Your task to perform on an android device: open app "DoorDash - Food Delivery" (install if not already installed) Image 0: 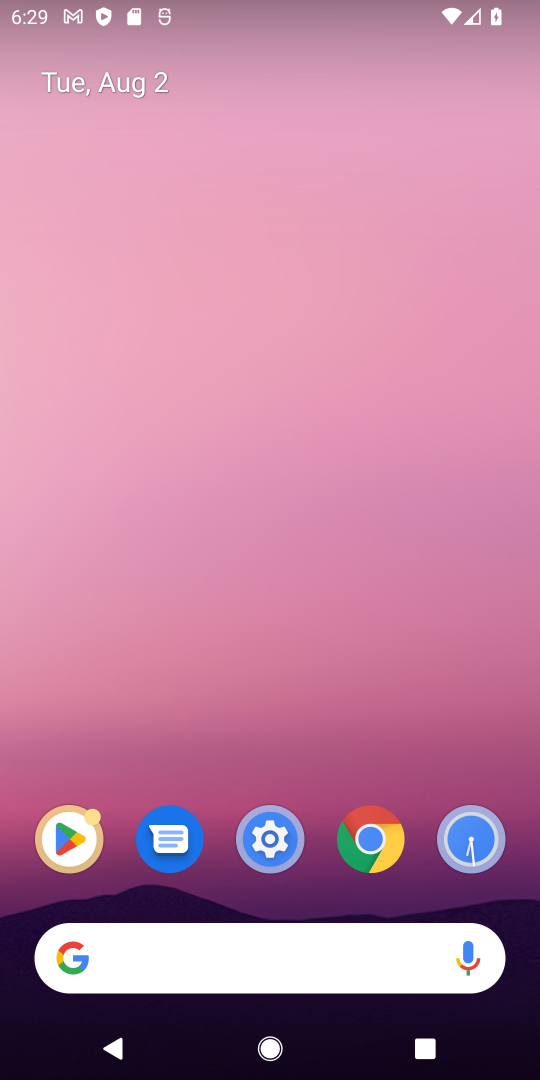
Step 0: click (62, 849)
Your task to perform on an android device: open app "DoorDash - Food Delivery" (install if not already installed) Image 1: 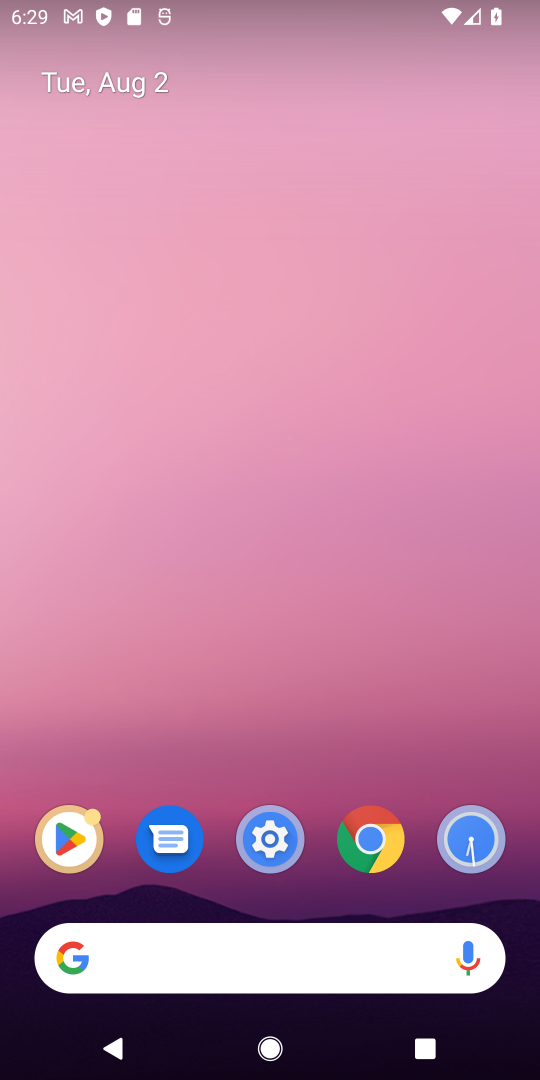
Step 1: click (76, 833)
Your task to perform on an android device: open app "DoorDash - Food Delivery" (install if not already installed) Image 2: 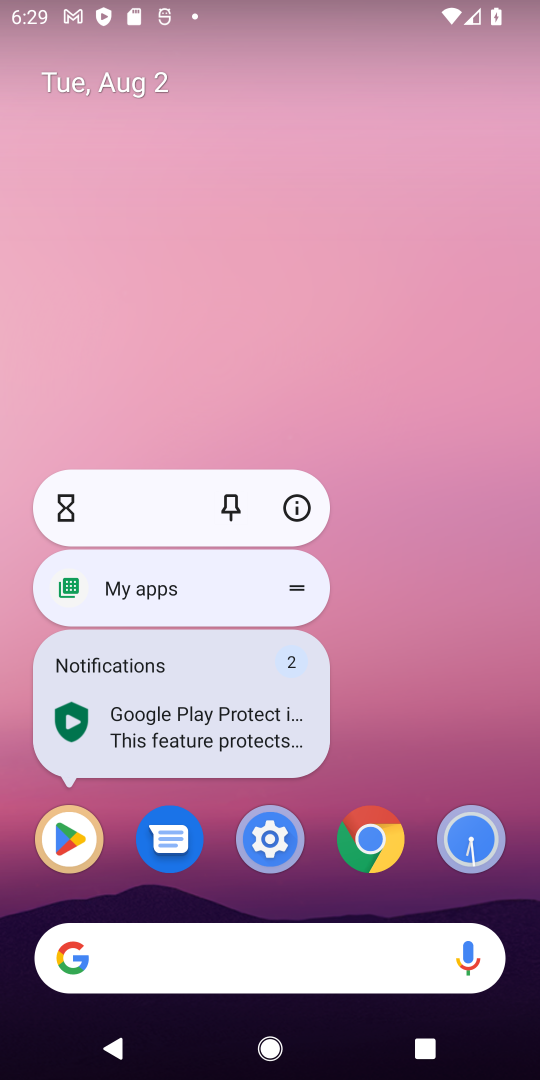
Step 2: click (64, 824)
Your task to perform on an android device: open app "DoorDash - Food Delivery" (install if not already installed) Image 3: 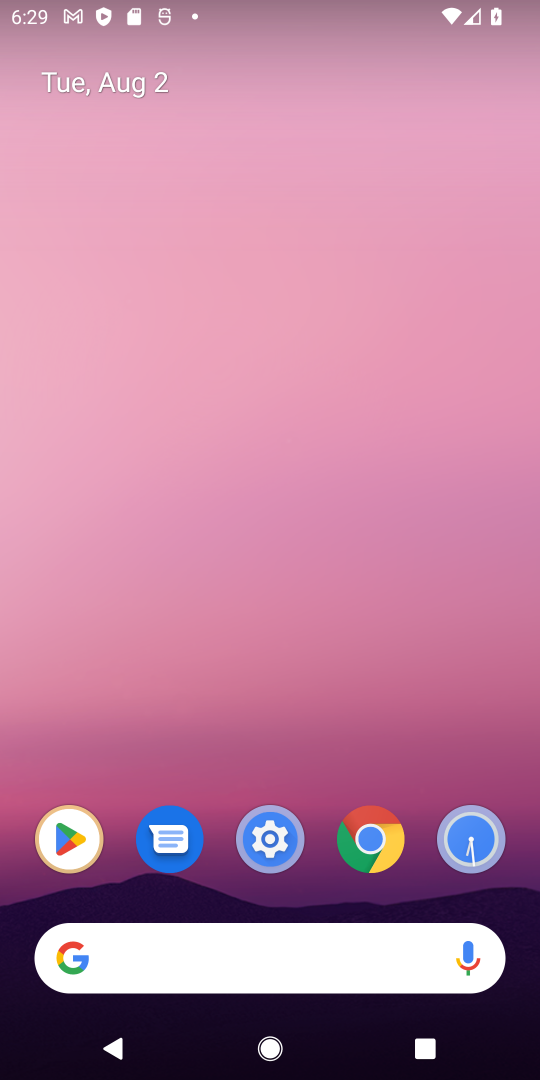
Step 3: click (77, 827)
Your task to perform on an android device: open app "DoorDash - Food Delivery" (install if not already installed) Image 4: 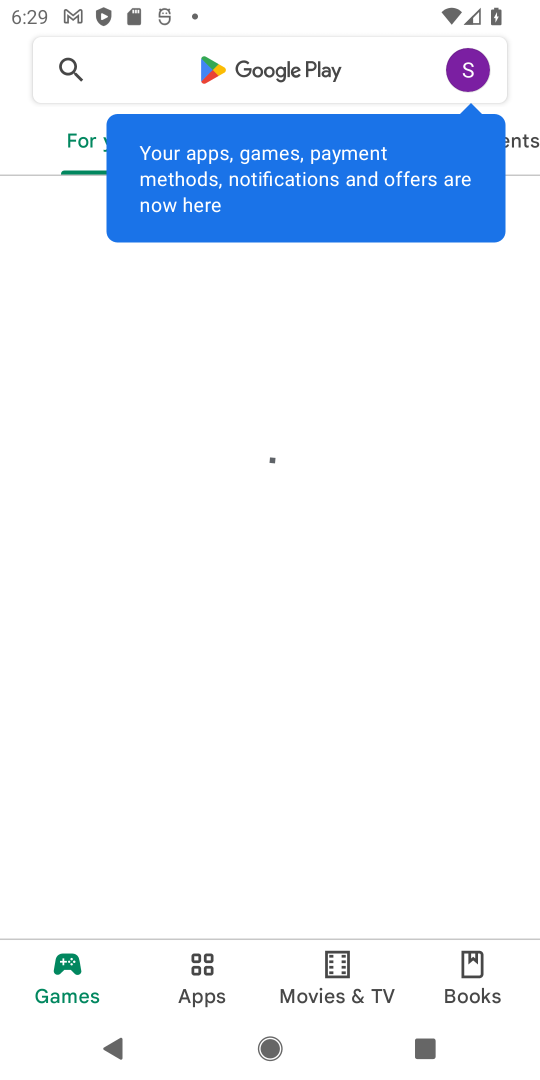
Step 4: click (232, 81)
Your task to perform on an android device: open app "DoorDash - Food Delivery" (install if not already installed) Image 5: 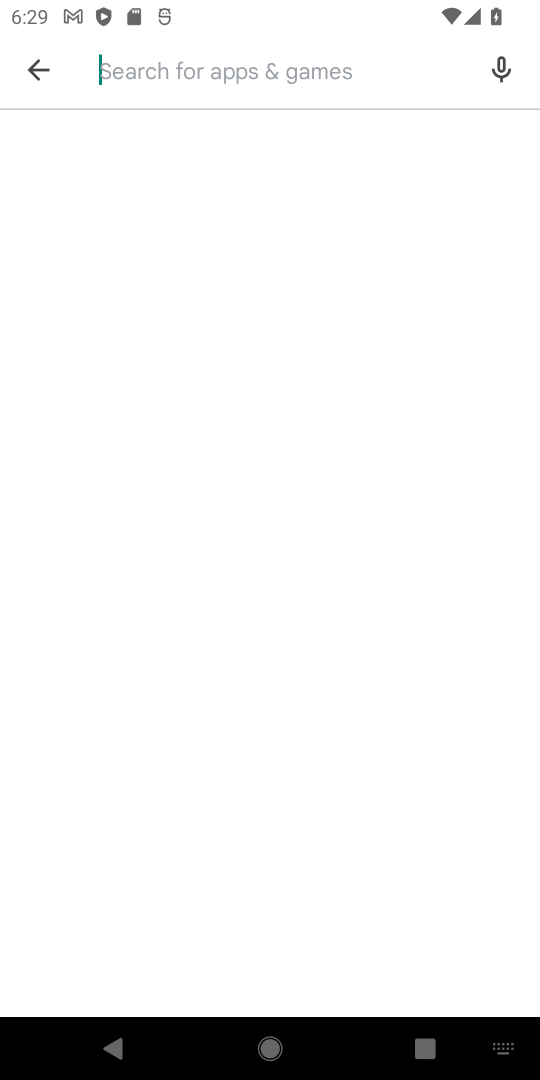
Step 5: type "doordash-food delivery"
Your task to perform on an android device: open app "DoorDash - Food Delivery" (install if not already installed) Image 6: 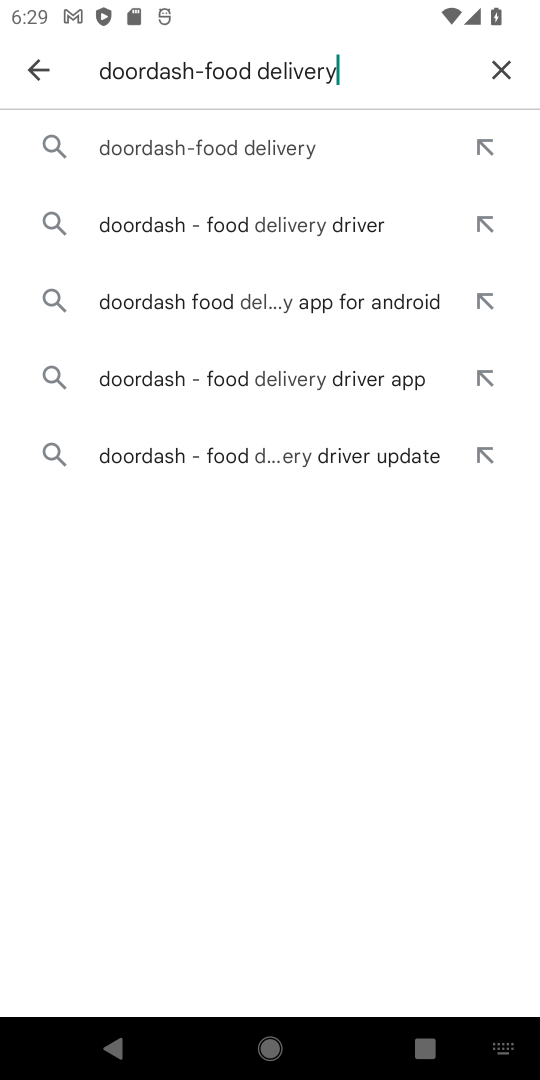
Step 6: click (245, 165)
Your task to perform on an android device: open app "DoorDash - Food Delivery" (install if not already installed) Image 7: 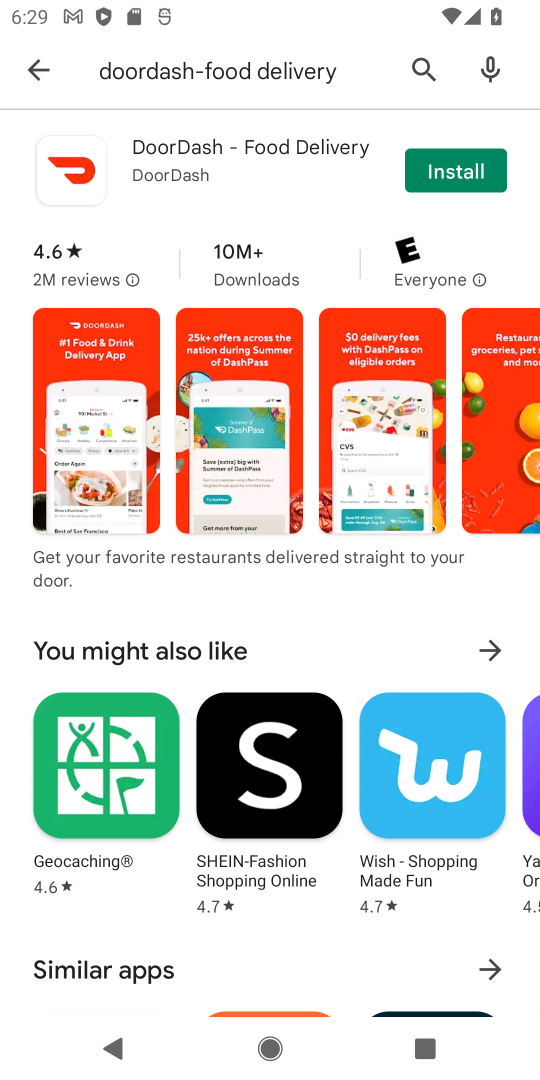
Step 7: click (470, 176)
Your task to perform on an android device: open app "DoorDash - Food Delivery" (install if not already installed) Image 8: 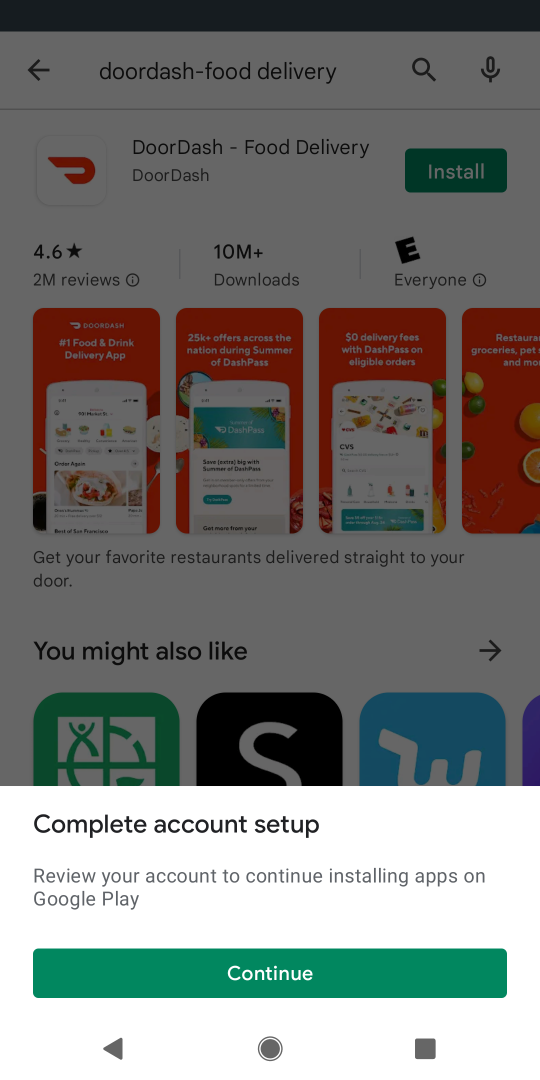
Step 8: click (229, 981)
Your task to perform on an android device: open app "DoorDash - Food Delivery" (install if not already installed) Image 9: 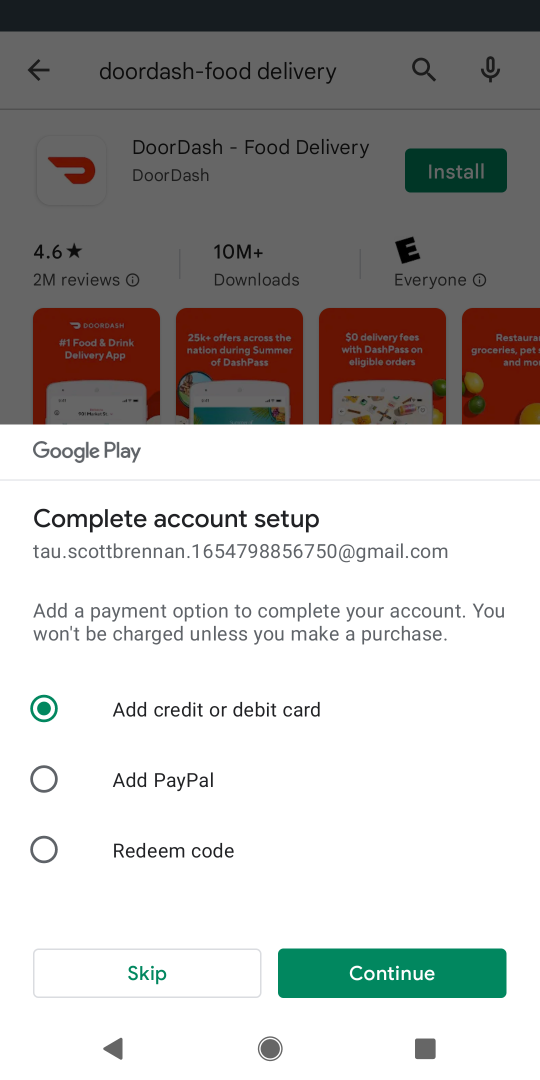
Step 9: click (179, 971)
Your task to perform on an android device: open app "DoorDash - Food Delivery" (install if not already installed) Image 10: 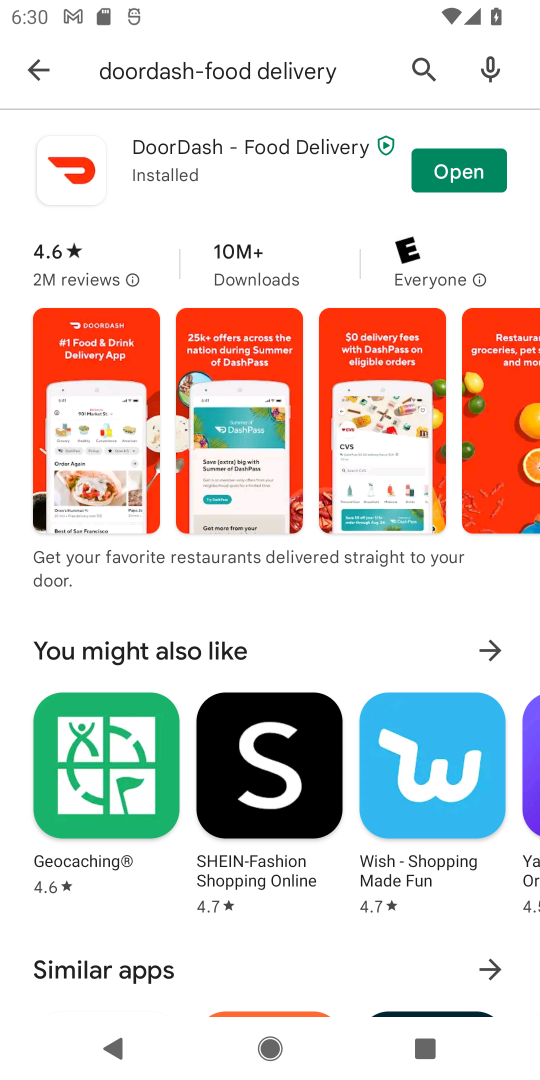
Step 10: click (448, 178)
Your task to perform on an android device: open app "DoorDash - Food Delivery" (install if not already installed) Image 11: 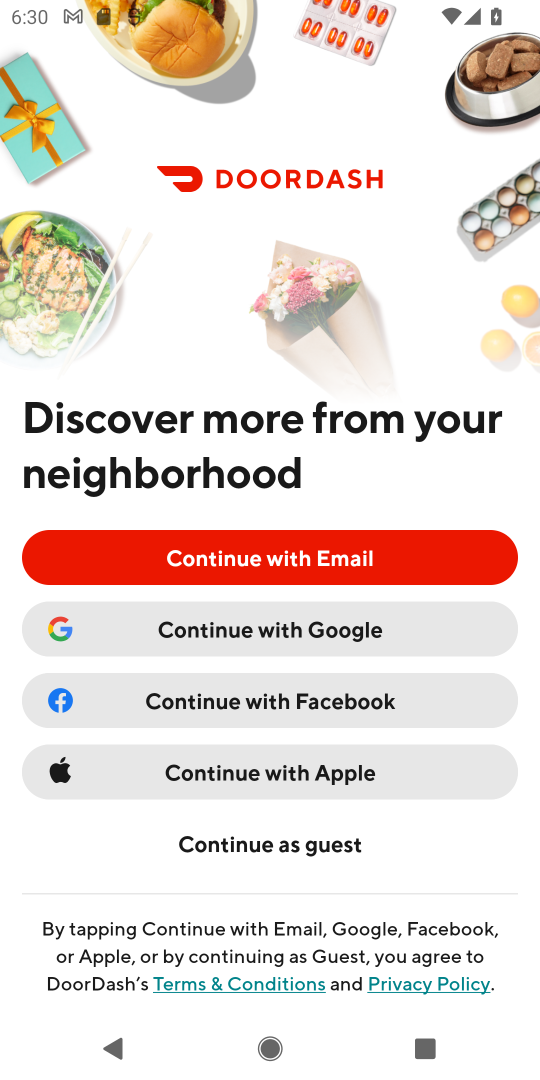
Step 11: click (299, 622)
Your task to perform on an android device: open app "DoorDash - Food Delivery" (install if not already installed) Image 12: 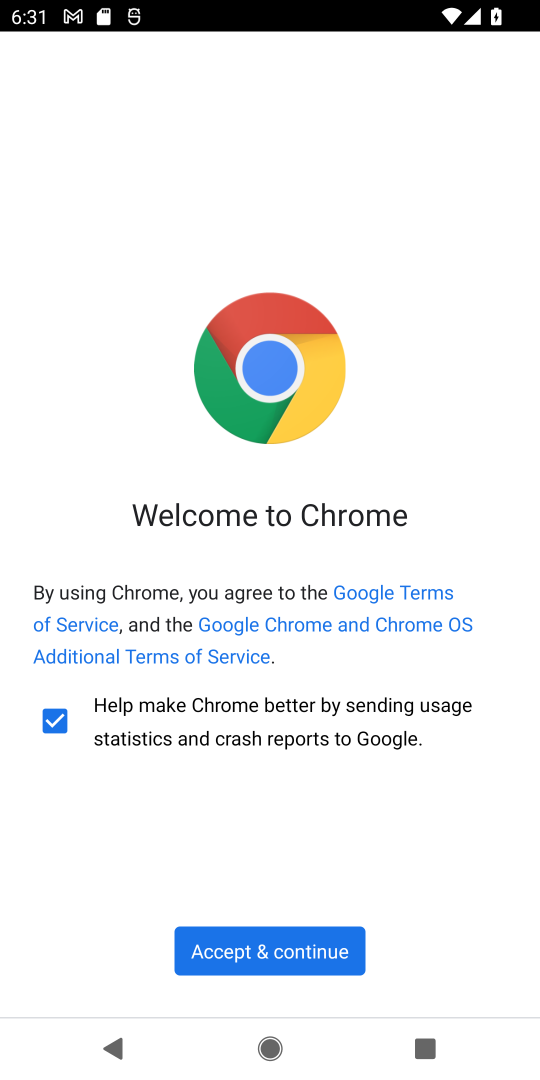
Step 12: click (279, 949)
Your task to perform on an android device: open app "DoorDash - Food Delivery" (install if not already installed) Image 13: 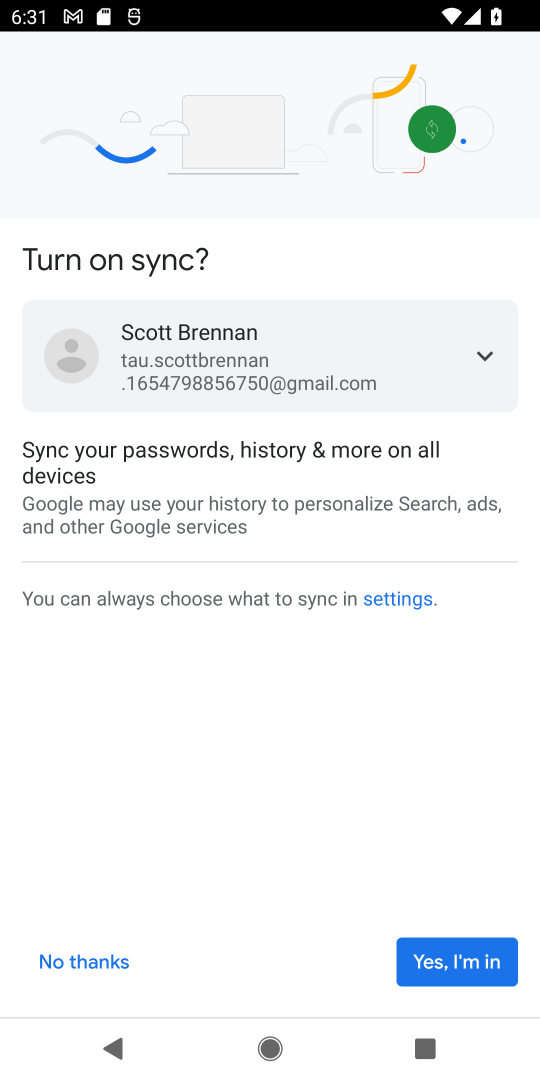
Step 13: click (486, 952)
Your task to perform on an android device: open app "DoorDash - Food Delivery" (install if not already installed) Image 14: 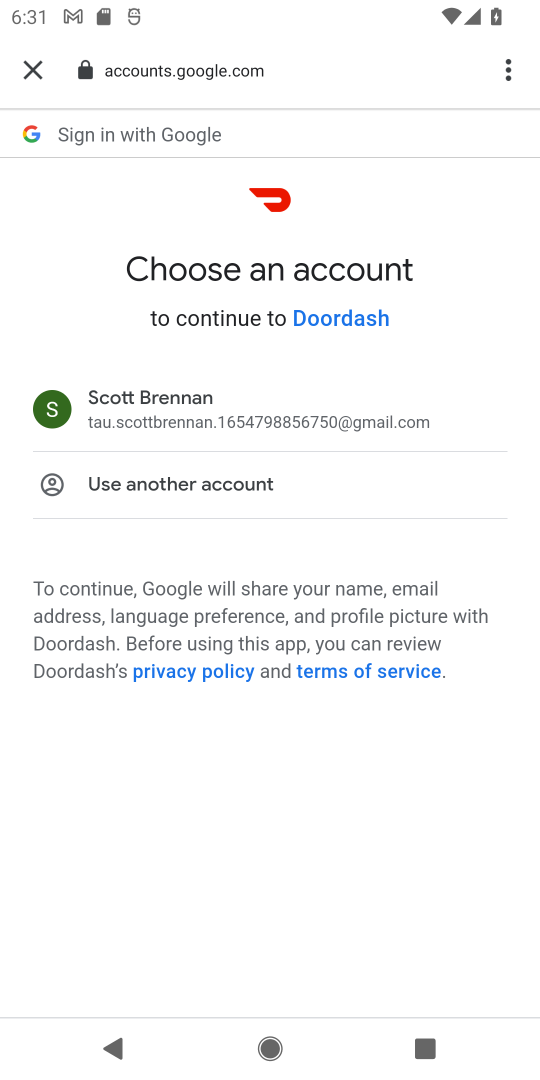
Step 14: click (221, 418)
Your task to perform on an android device: open app "DoorDash - Food Delivery" (install if not already installed) Image 15: 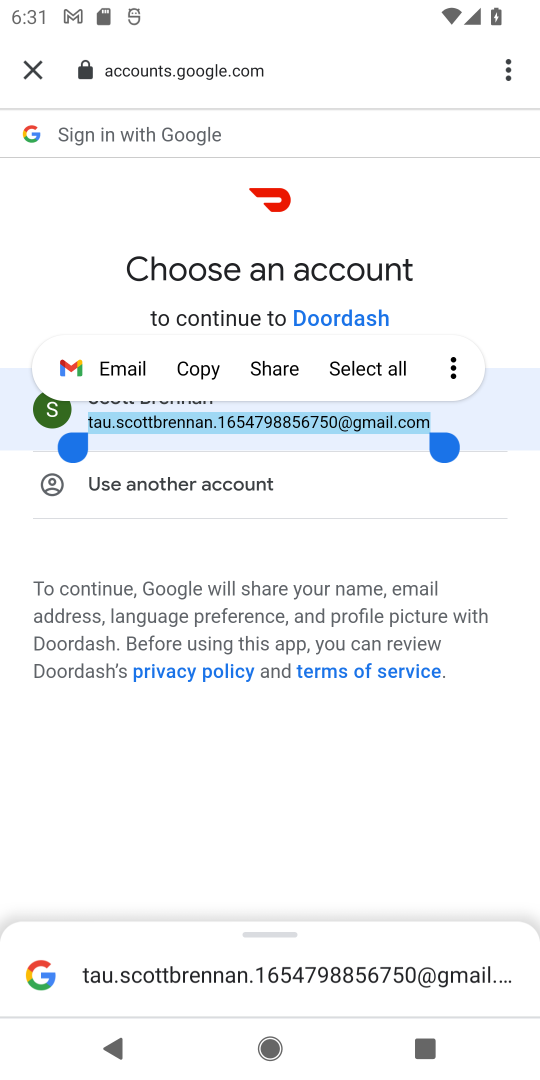
Step 15: click (509, 426)
Your task to perform on an android device: open app "DoorDash - Food Delivery" (install if not already installed) Image 16: 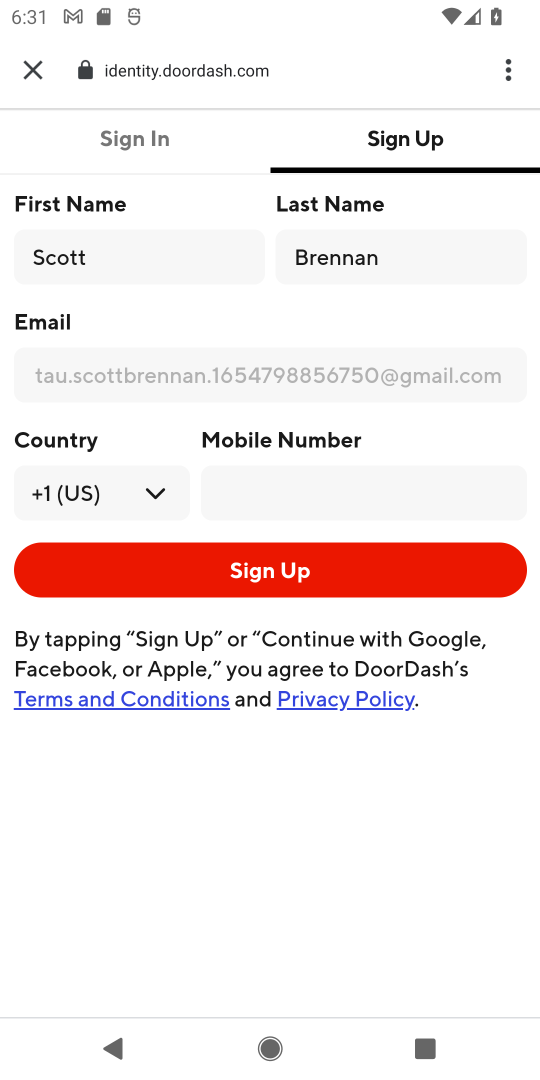
Step 16: task complete